Your task to perform on an android device: change the clock style Image 0: 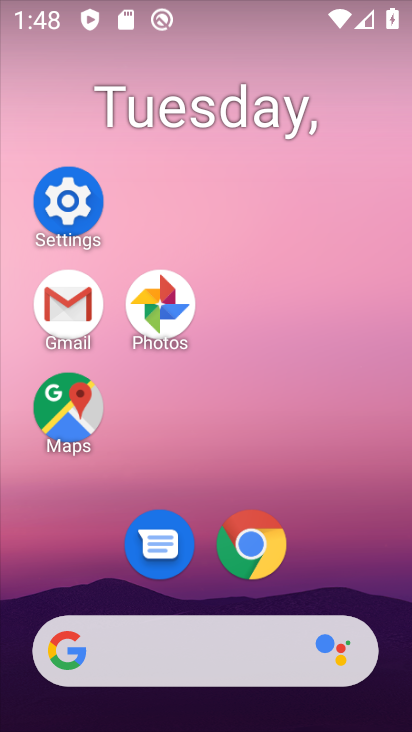
Step 0: drag from (343, 576) to (335, 99)
Your task to perform on an android device: change the clock style Image 1: 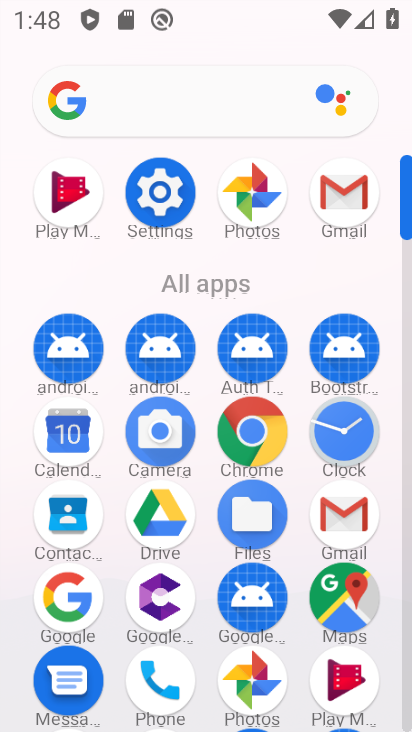
Step 1: drag from (350, 436) to (166, 224)
Your task to perform on an android device: change the clock style Image 2: 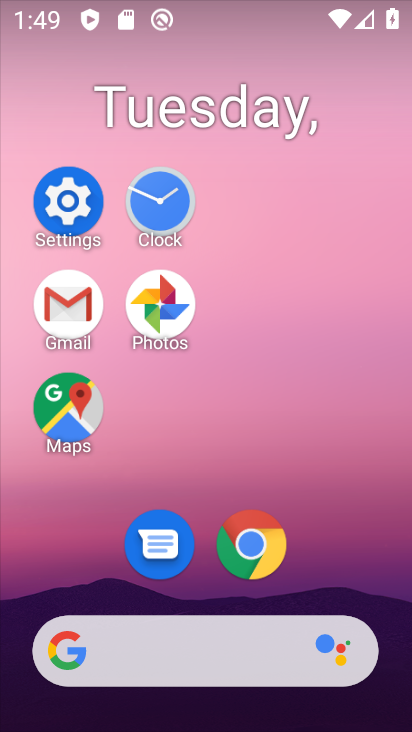
Step 2: click (182, 200)
Your task to perform on an android device: change the clock style Image 3: 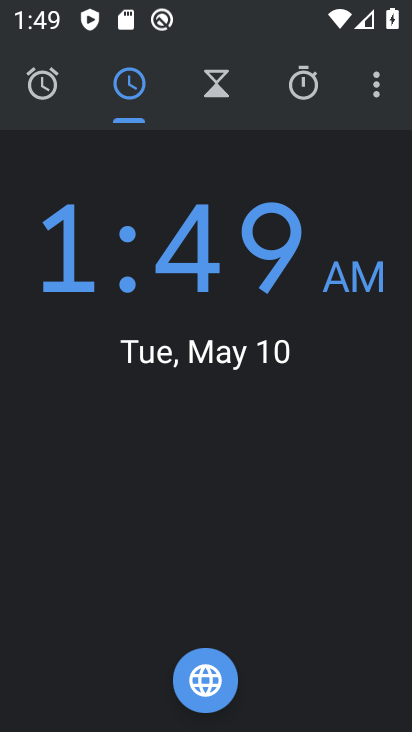
Step 3: click (377, 68)
Your task to perform on an android device: change the clock style Image 4: 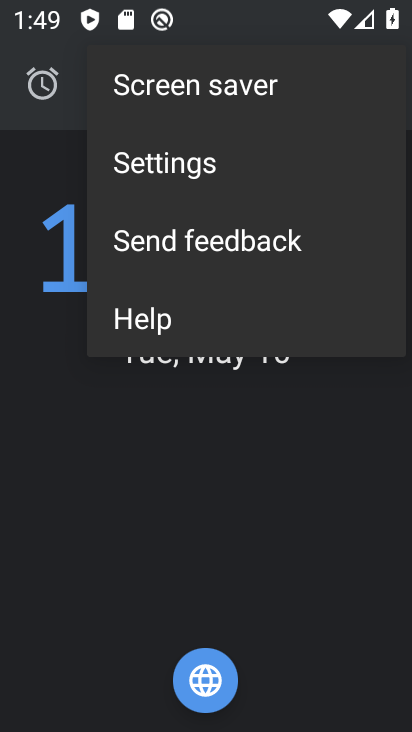
Step 4: click (181, 165)
Your task to perform on an android device: change the clock style Image 5: 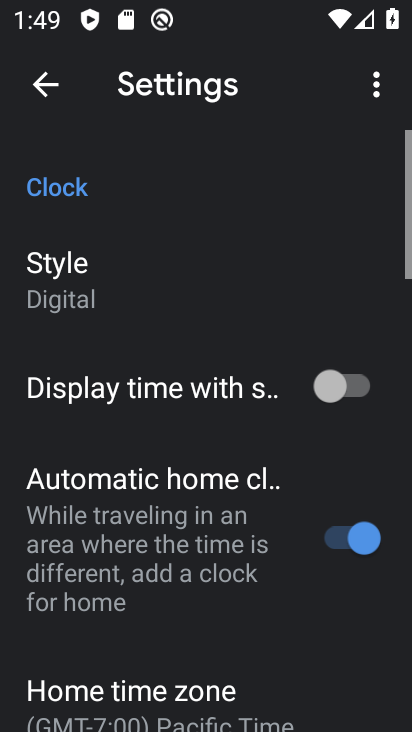
Step 5: click (129, 259)
Your task to perform on an android device: change the clock style Image 6: 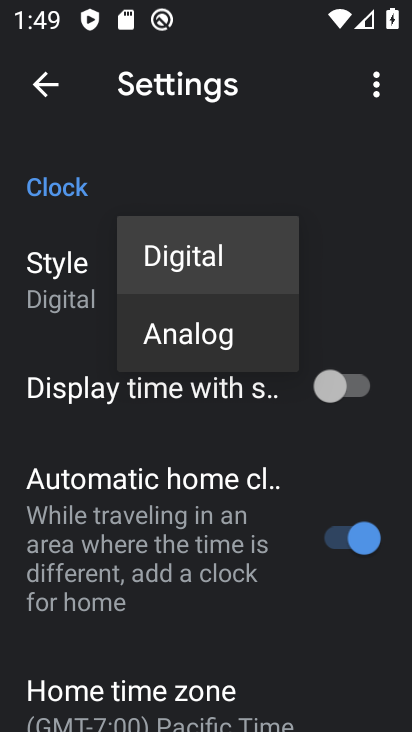
Step 6: click (172, 331)
Your task to perform on an android device: change the clock style Image 7: 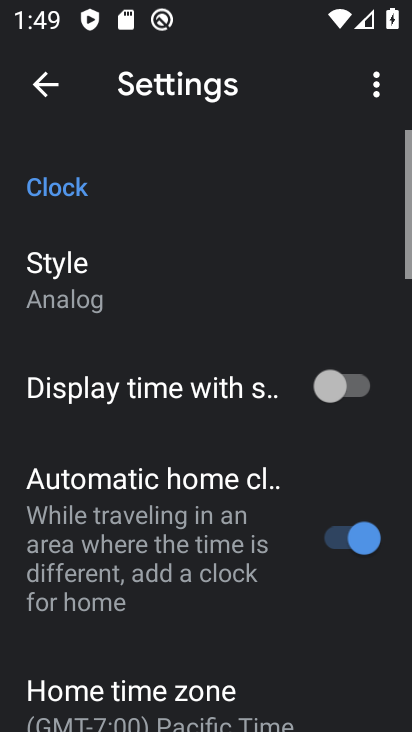
Step 7: task complete